Your task to perform on an android device: Open the stopwatch Image 0: 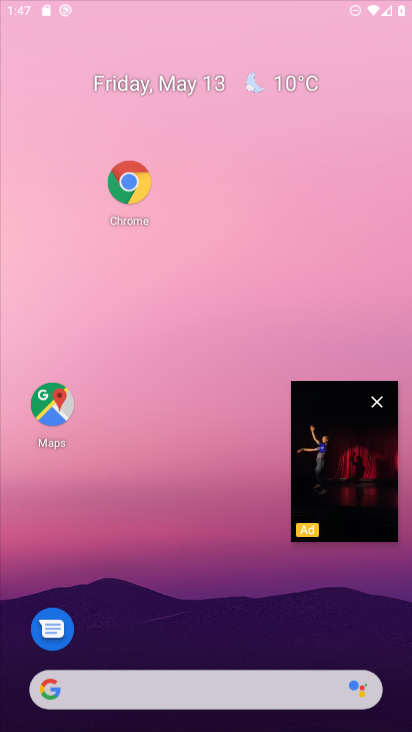
Step 0: click (198, 720)
Your task to perform on an android device: Open the stopwatch Image 1: 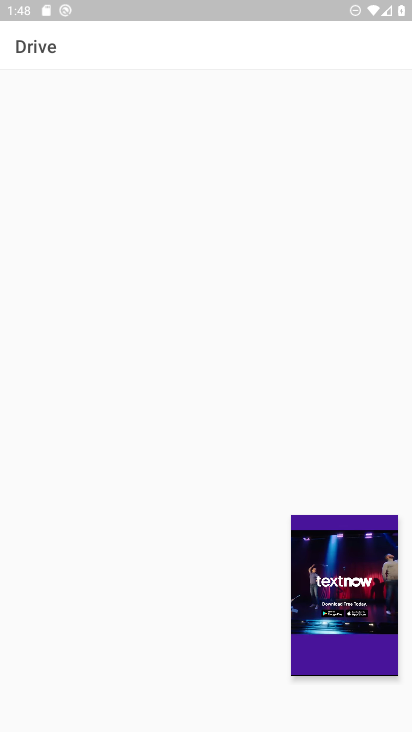
Step 1: drag from (351, 573) to (223, 714)
Your task to perform on an android device: Open the stopwatch Image 2: 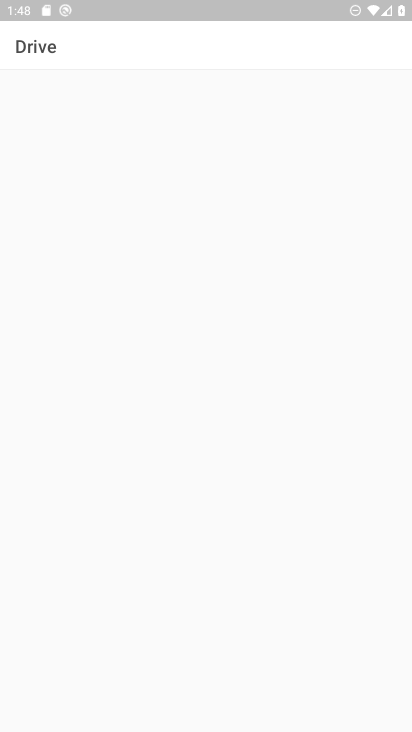
Step 2: press home button
Your task to perform on an android device: Open the stopwatch Image 3: 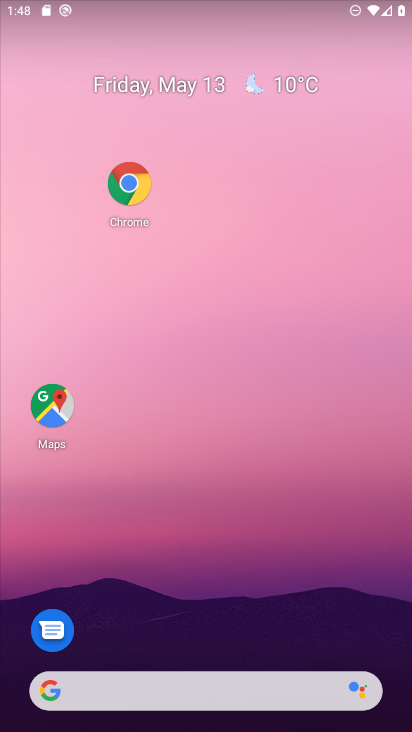
Step 3: drag from (235, 687) to (218, 185)
Your task to perform on an android device: Open the stopwatch Image 4: 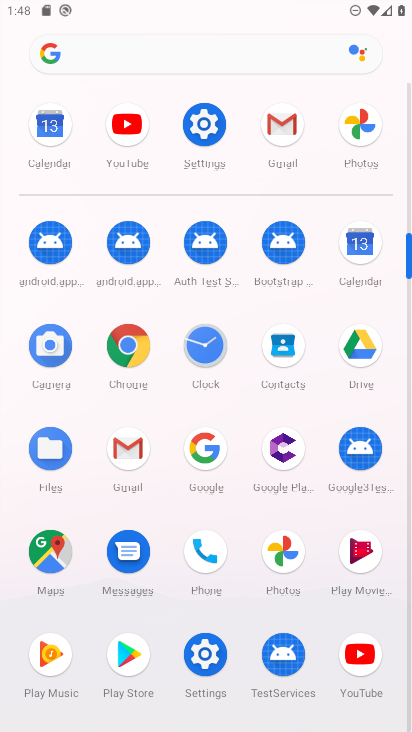
Step 4: click (192, 354)
Your task to perform on an android device: Open the stopwatch Image 5: 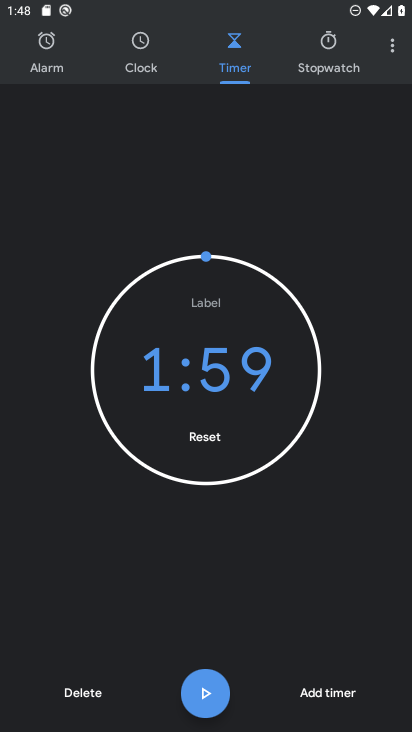
Step 5: click (328, 72)
Your task to perform on an android device: Open the stopwatch Image 6: 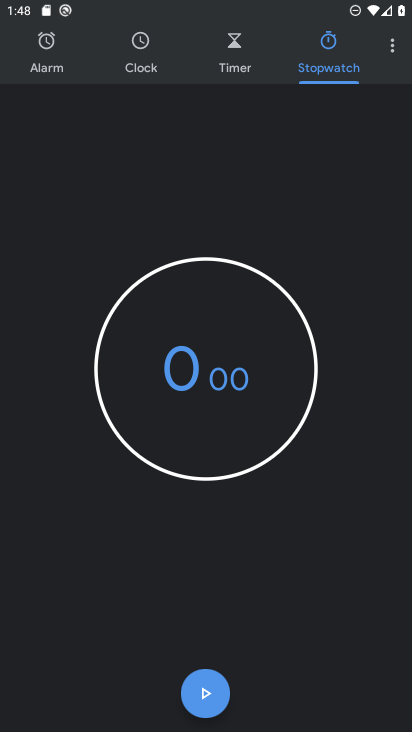
Step 6: task complete